Your task to perform on an android device: Go to calendar. Show me events next week Image 0: 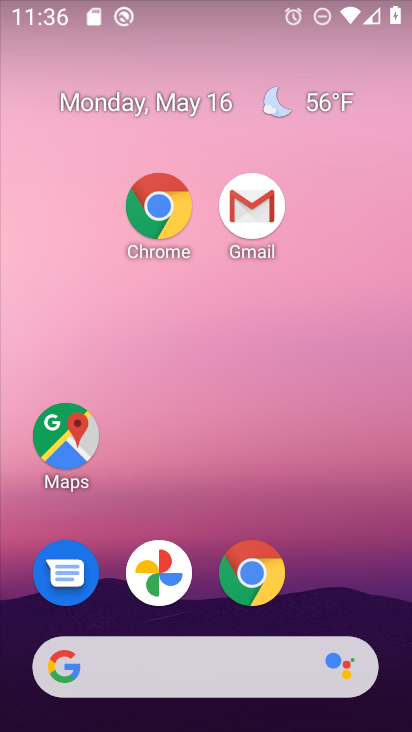
Step 0: click (289, 187)
Your task to perform on an android device: Go to calendar. Show me events next week Image 1: 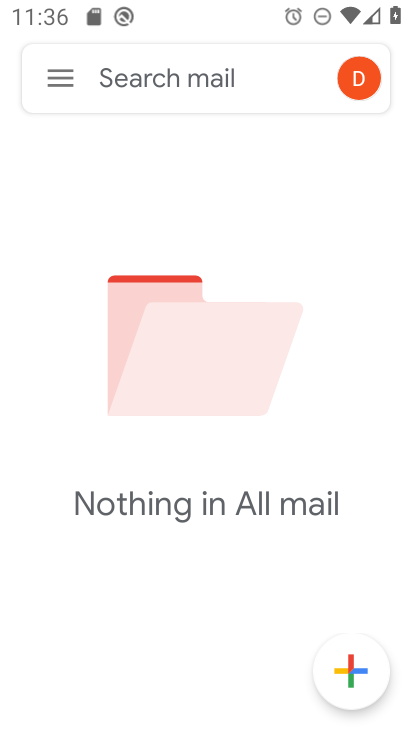
Step 1: press back button
Your task to perform on an android device: Go to calendar. Show me events next week Image 2: 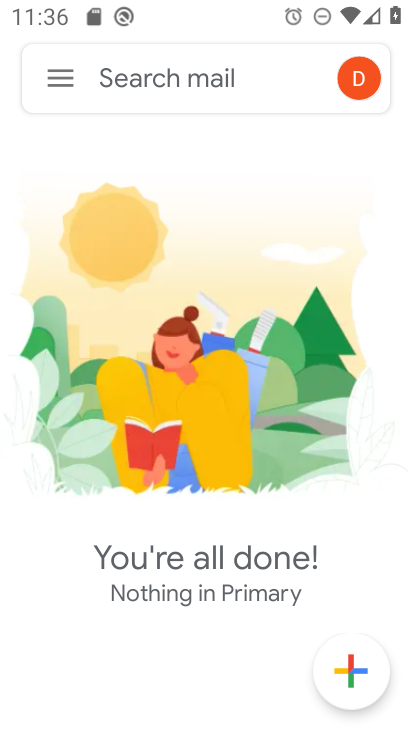
Step 2: press home button
Your task to perform on an android device: Go to calendar. Show me events next week Image 3: 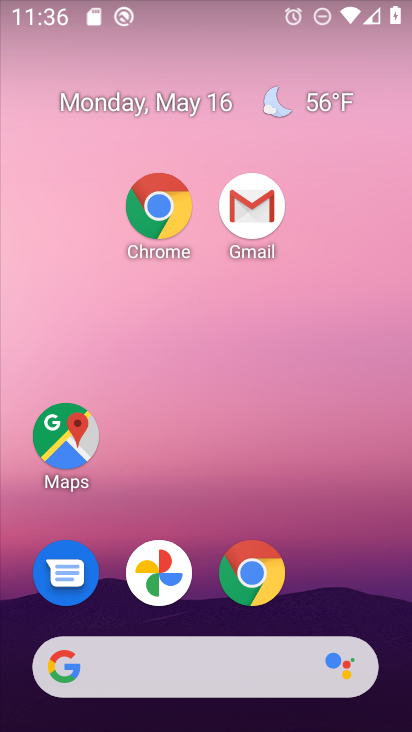
Step 3: drag from (358, 584) to (266, 196)
Your task to perform on an android device: Go to calendar. Show me events next week Image 4: 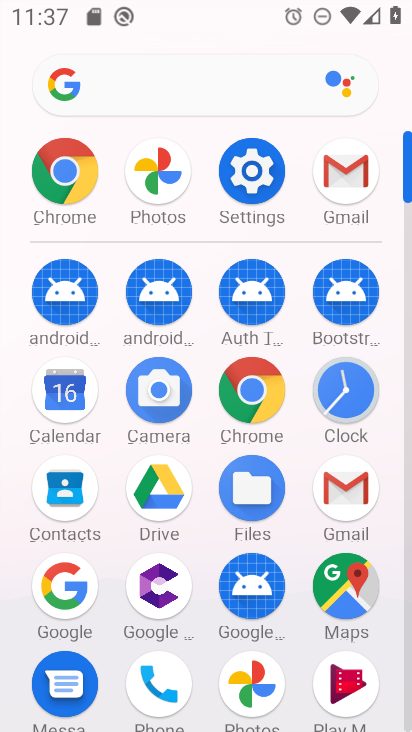
Step 4: click (61, 398)
Your task to perform on an android device: Go to calendar. Show me events next week Image 5: 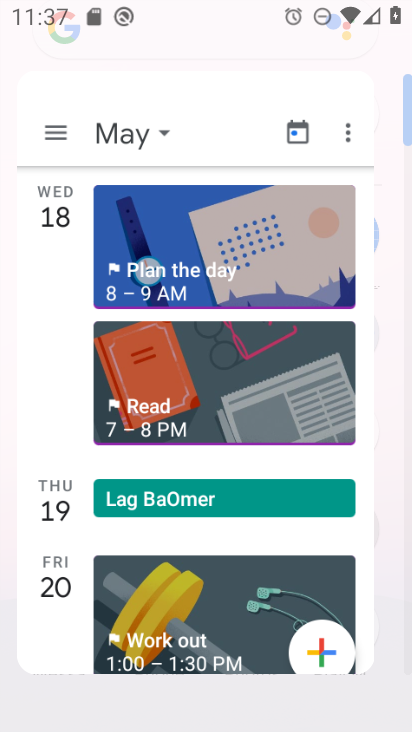
Step 5: click (61, 397)
Your task to perform on an android device: Go to calendar. Show me events next week Image 6: 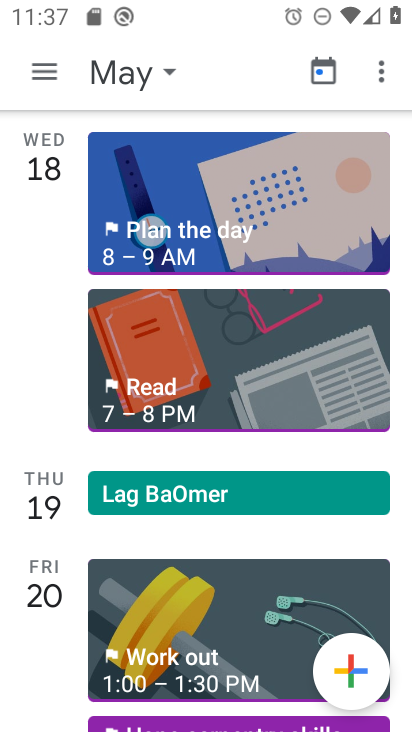
Step 6: drag from (220, 595) to (243, 149)
Your task to perform on an android device: Go to calendar. Show me events next week Image 7: 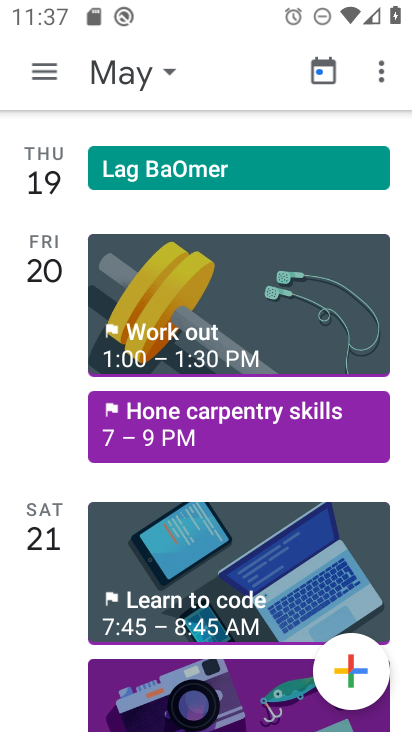
Step 7: drag from (107, 601) to (194, 187)
Your task to perform on an android device: Go to calendar. Show me events next week Image 8: 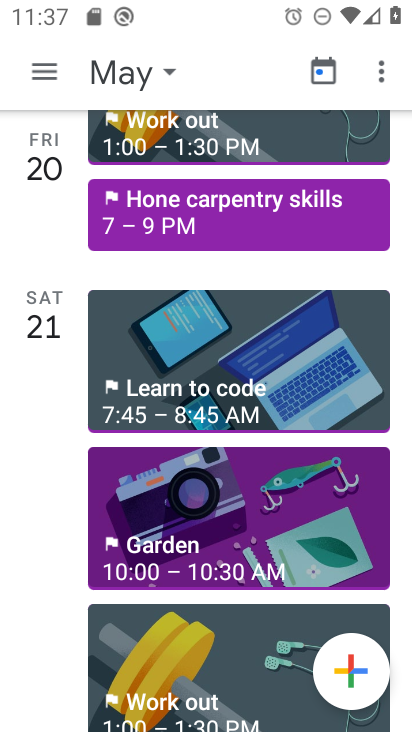
Step 8: drag from (185, 543) to (197, 161)
Your task to perform on an android device: Go to calendar. Show me events next week Image 9: 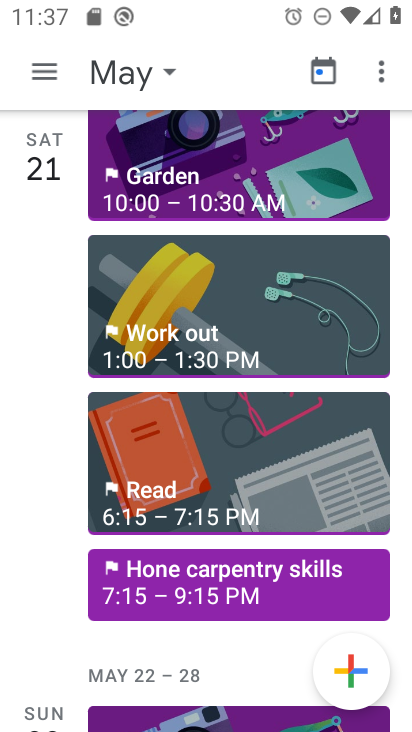
Step 9: drag from (172, 592) to (233, 181)
Your task to perform on an android device: Go to calendar. Show me events next week Image 10: 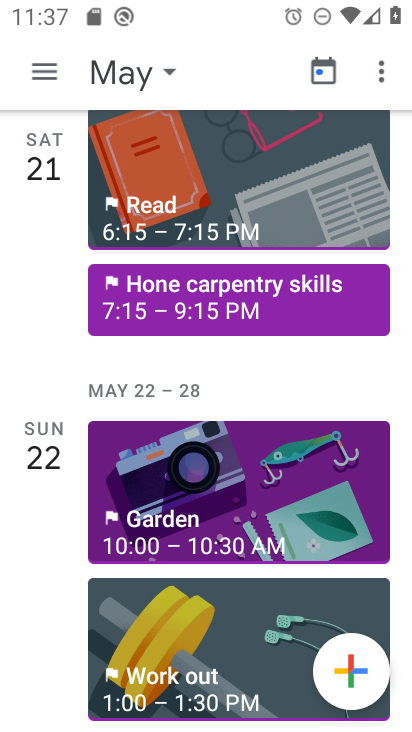
Step 10: drag from (188, 607) to (267, 48)
Your task to perform on an android device: Go to calendar. Show me events next week Image 11: 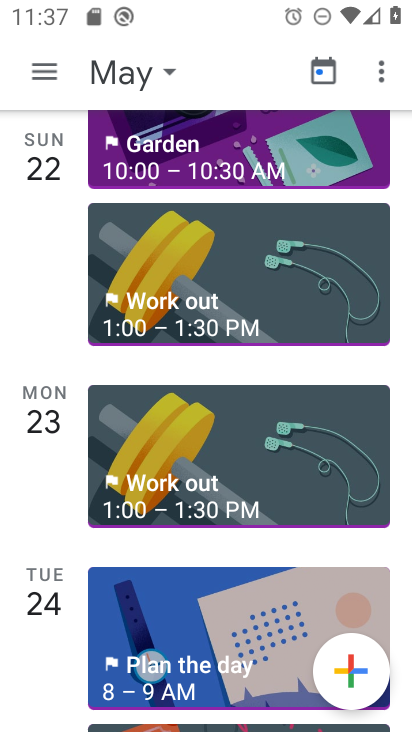
Step 11: drag from (214, 551) to (200, 64)
Your task to perform on an android device: Go to calendar. Show me events next week Image 12: 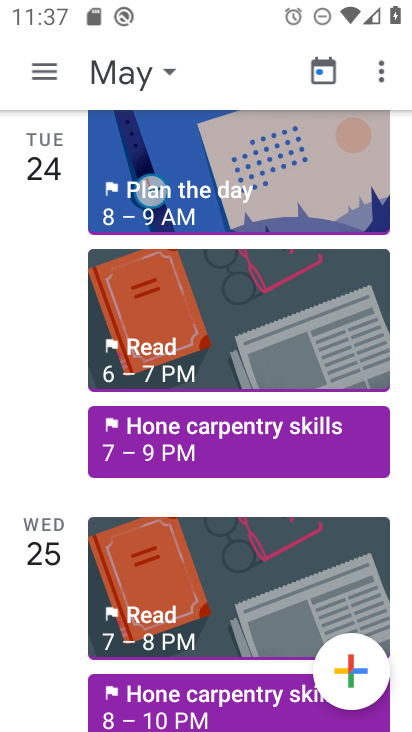
Step 12: click (158, 181)
Your task to perform on an android device: Go to calendar. Show me events next week Image 13: 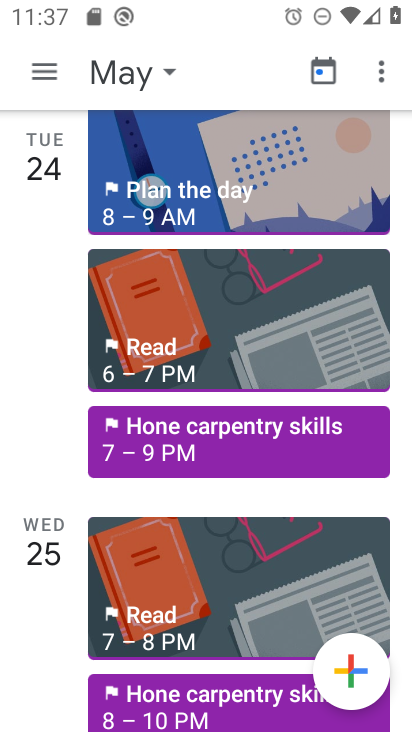
Step 13: click (158, 181)
Your task to perform on an android device: Go to calendar. Show me events next week Image 14: 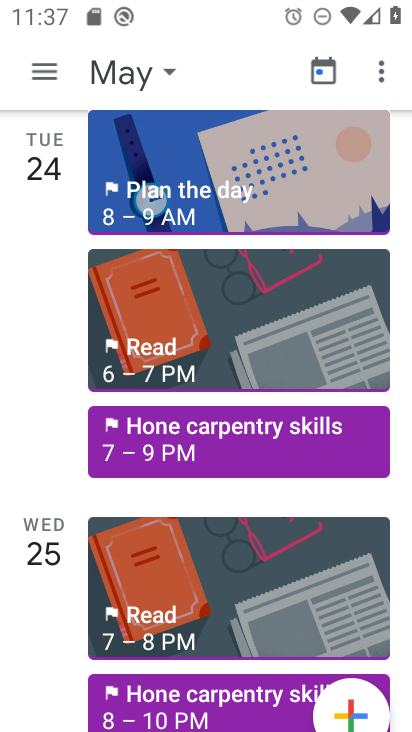
Step 14: click (158, 181)
Your task to perform on an android device: Go to calendar. Show me events next week Image 15: 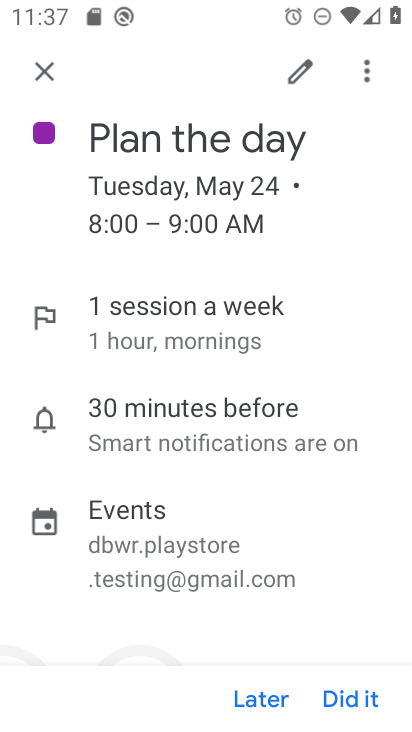
Step 15: task complete